Your task to perform on an android device: turn pop-ups on in chrome Image 0: 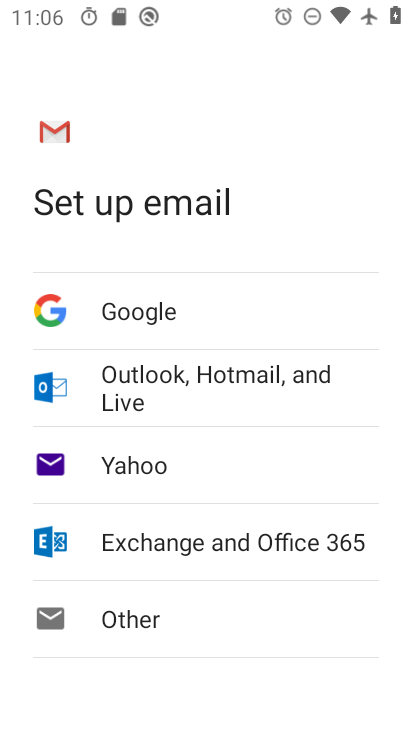
Step 0: press home button
Your task to perform on an android device: turn pop-ups on in chrome Image 1: 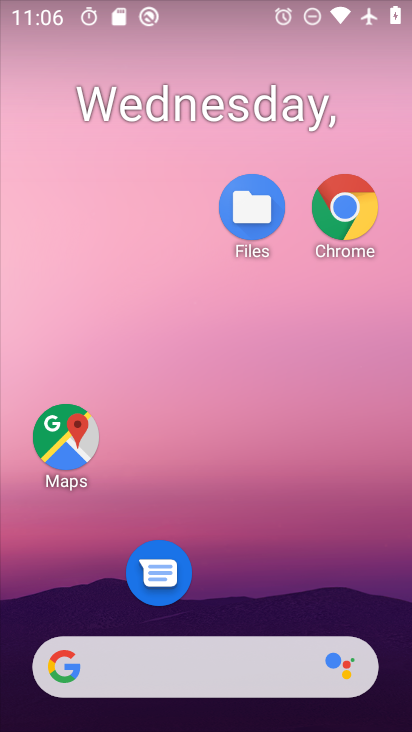
Step 1: click (354, 217)
Your task to perform on an android device: turn pop-ups on in chrome Image 2: 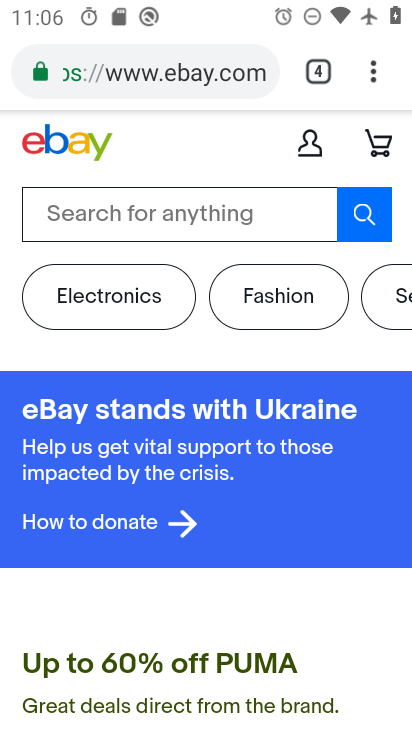
Step 2: click (379, 77)
Your task to perform on an android device: turn pop-ups on in chrome Image 3: 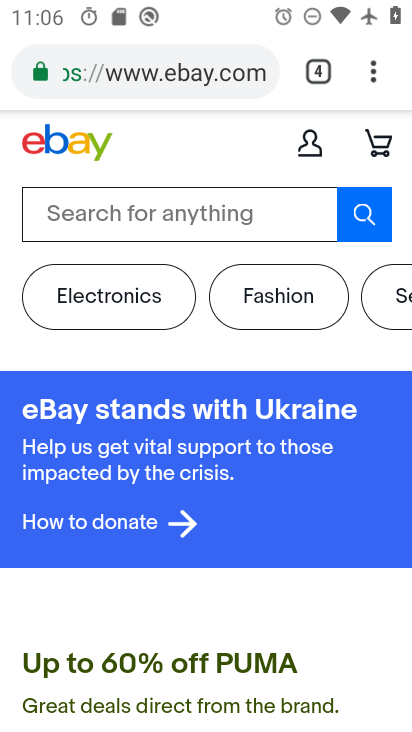
Step 3: click (377, 72)
Your task to perform on an android device: turn pop-ups on in chrome Image 4: 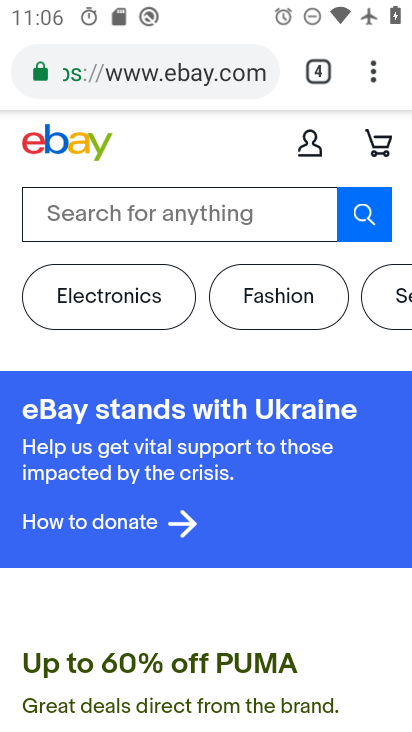
Step 4: click (368, 77)
Your task to perform on an android device: turn pop-ups on in chrome Image 5: 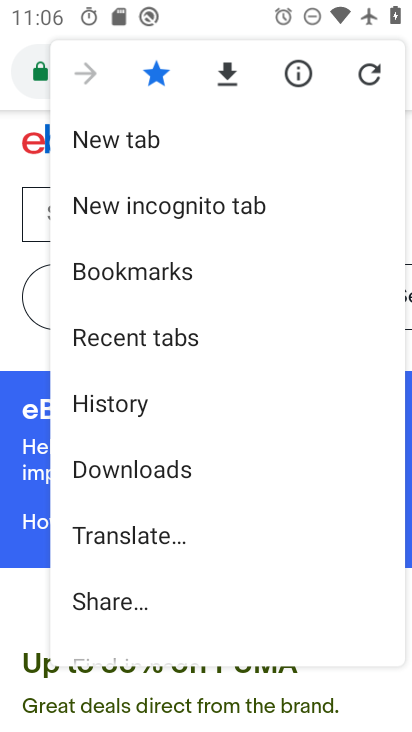
Step 5: drag from (175, 529) to (258, 227)
Your task to perform on an android device: turn pop-ups on in chrome Image 6: 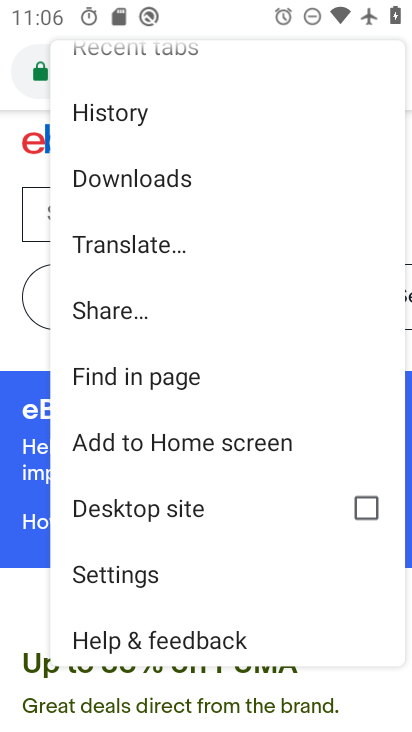
Step 6: click (128, 585)
Your task to perform on an android device: turn pop-ups on in chrome Image 7: 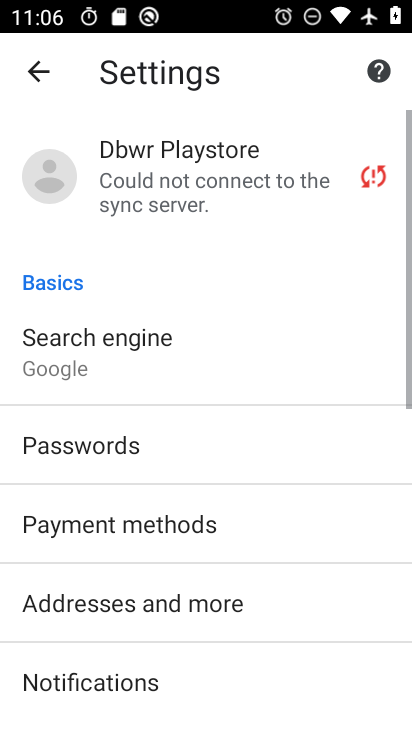
Step 7: drag from (128, 585) to (180, 443)
Your task to perform on an android device: turn pop-ups on in chrome Image 8: 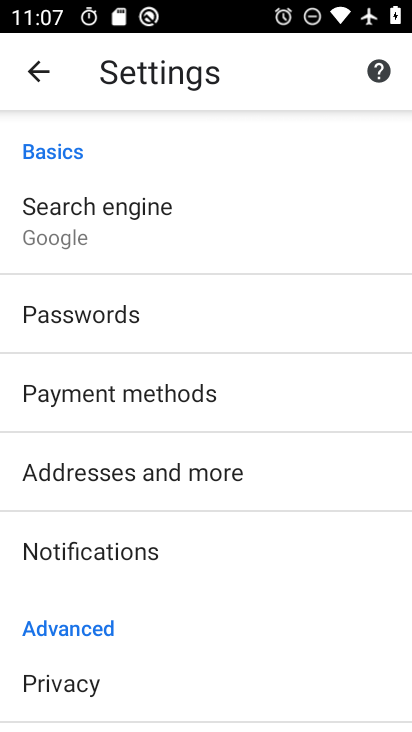
Step 8: drag from (131, 664) to (209, 419)
Your task to perform on an android device: turn pop-ups on in chrome Image 9: 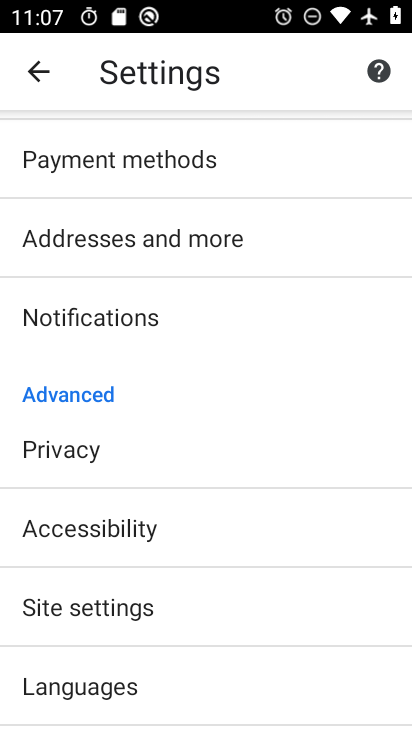
Step 9: click (104, 619)
Your task to perform on an android device: turn pop-ups on in chrome Image 10: 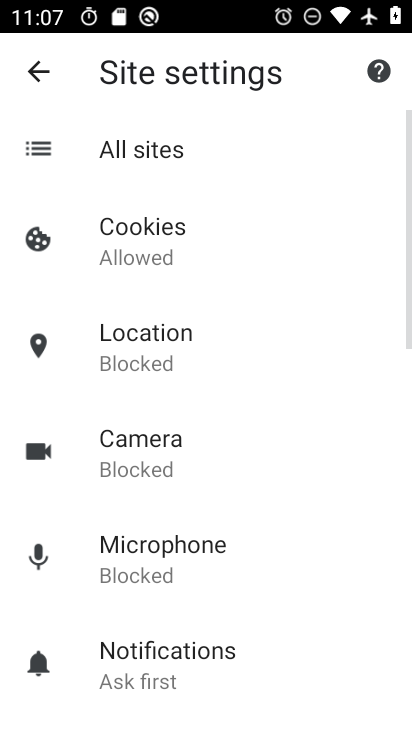
Step 10: drag from (183, 641) to (302, 255)
Your task to perform on an android device: turn pop-ups on in chrome Image 11: 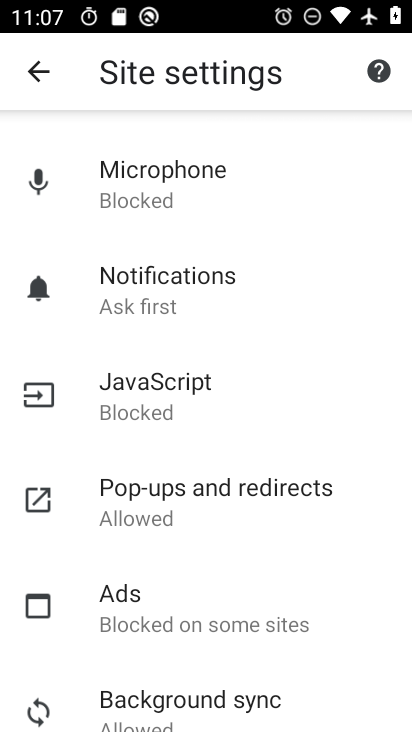
Step 11: click (212, 506)
Your task to perform on an android device: turn pop-ups on in chrome Image 12: 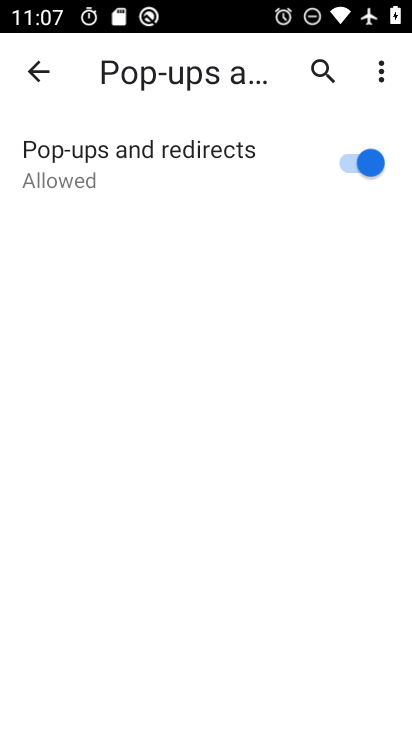
Step 12: task complete